Your task to perform on an android device: Open Youtube and go to "Your channel" Image 0: 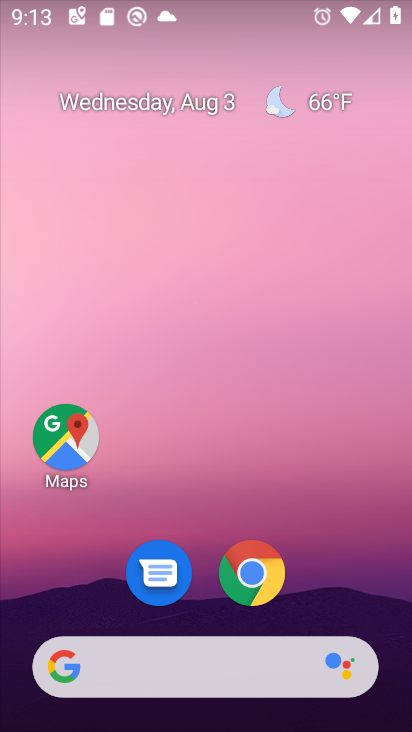
Step 0: drag from (331, 625) to (345, 26)
Your task to perform on an android device: Open Youtube and go to "Your channel" Image 1: 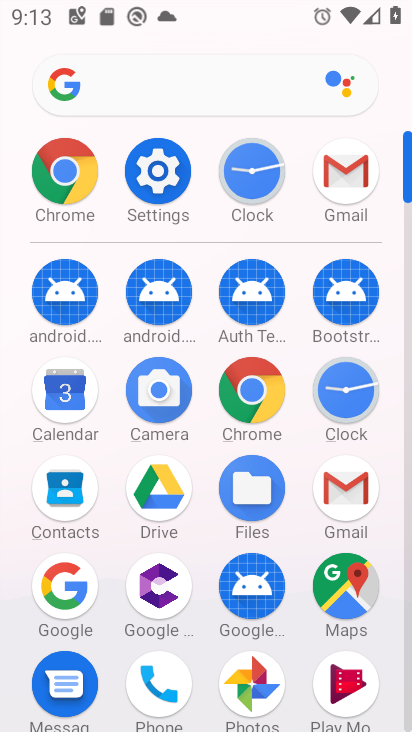
Step 1: drag from (407, 537) to (409, 492)
Your task to perform on an android device: Open Youtube and go to "Your channel" Image 2: 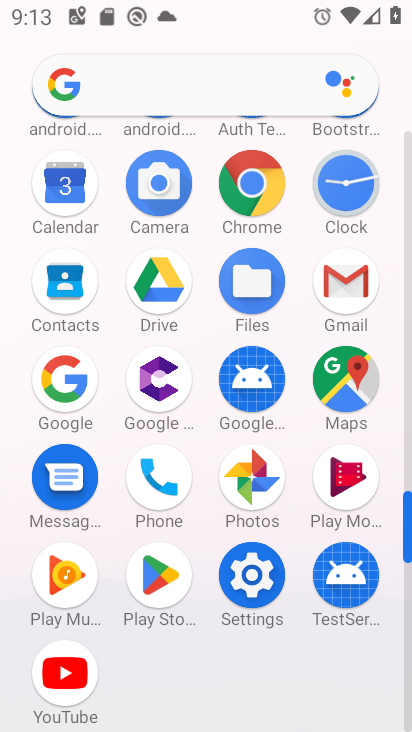
Step 2: click (58, 685)
Your task to perform on an android device: Open Youtube and go to "Your channel" Image 3: 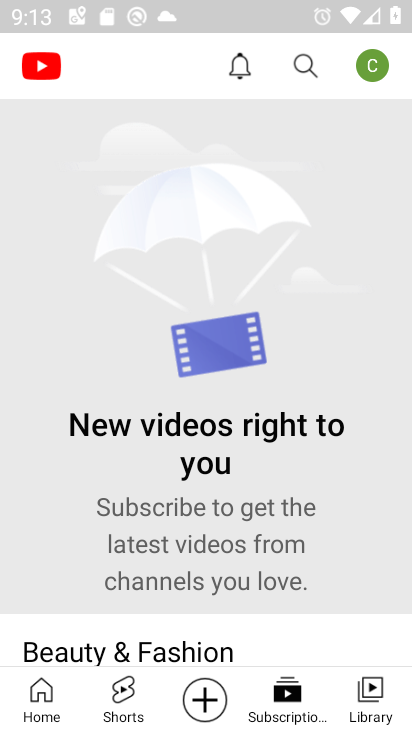
Step 3: click (376, 73)
Your task to perform on an android device: Open Youtube and go to "Your channel" Image 4: 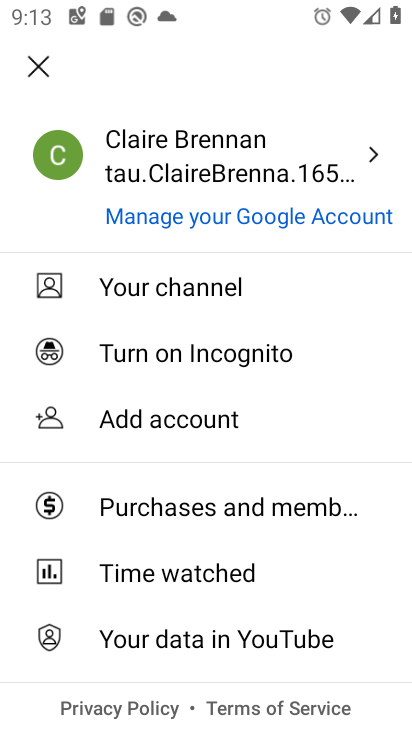
Step 4: click (191, 287)
Your task to perform on an android device: Open Youtube and go to "Your channel" Image 5: 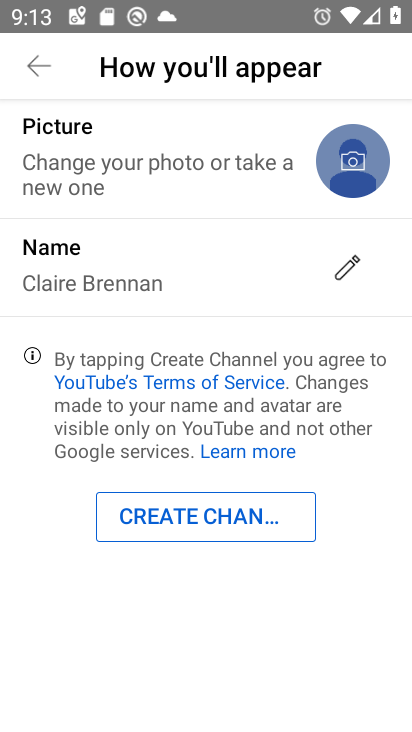
Step 5: task complete